Your task to perform on an android device: turn off priority inbox in the gmail app Image 0: 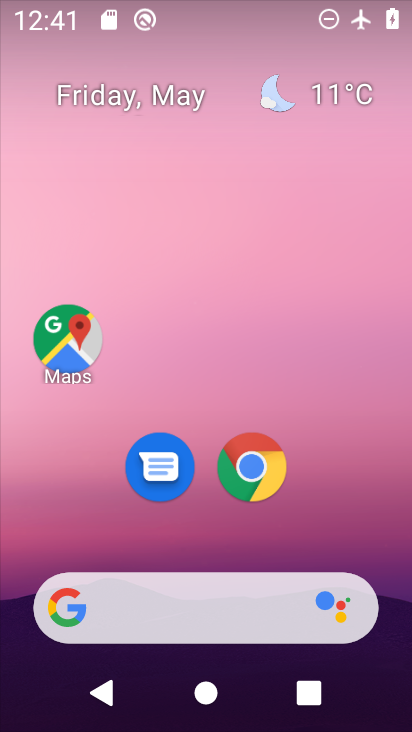
Step 0: drag from (315, 534) to (314, 170)
Your task to perform on an android device: turn off priority inbox in the gmail app Image 1: 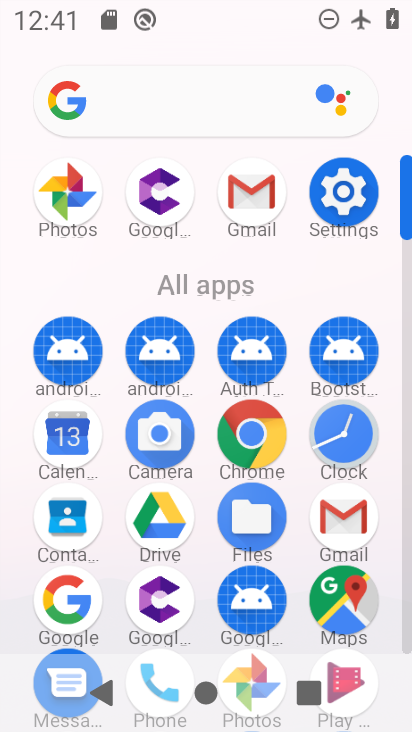
Step 1: click (336, 520)
Your task to perform on an android device: turn off priority inbox in the gmail app Image 2: 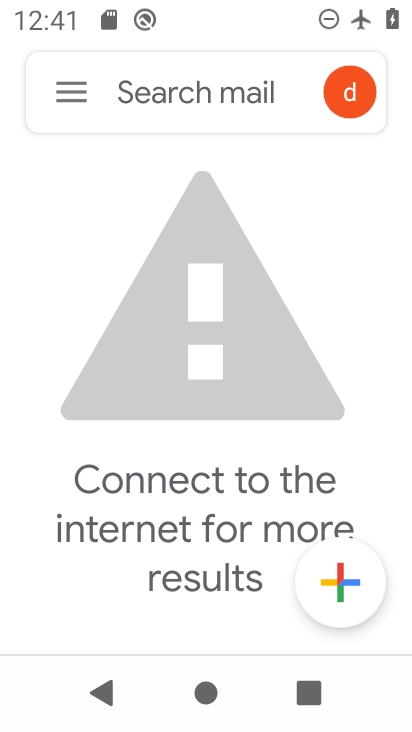
Step 2: click (78, 90)
Your task to perform on an android device: turn off priority inbox in the gmail app Image 3: 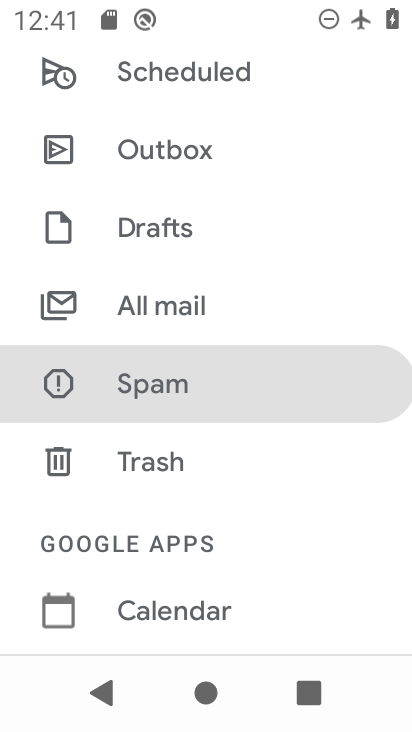
Step 3: drag from (221, 122) to (244, 603)
Your task to perform on an android device: turn off priority inbox in the gmail app Image 4: 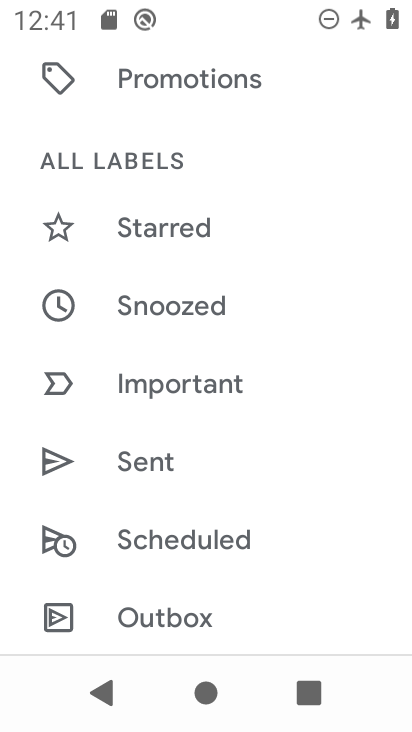
Step 4: drag from (209, 205) to (228, 551)
Your task to perform on an android device: turn off priority inbox in the gmail app Image 5: 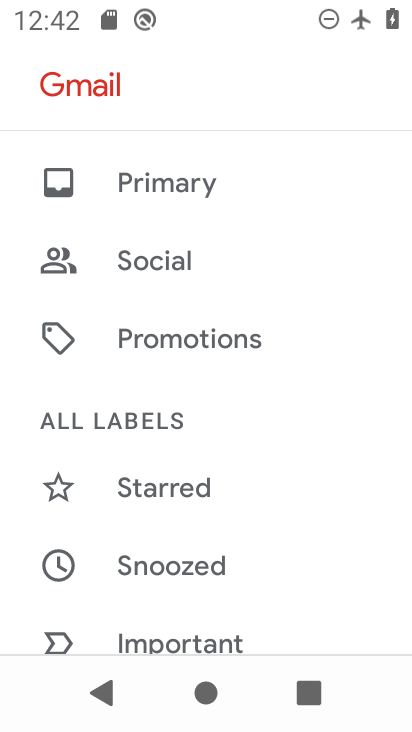
Step 5: drag from (266, 558) to (265, 192)
Your task to perform on an android device: turn off priority inbox in the gmail app Image 6: 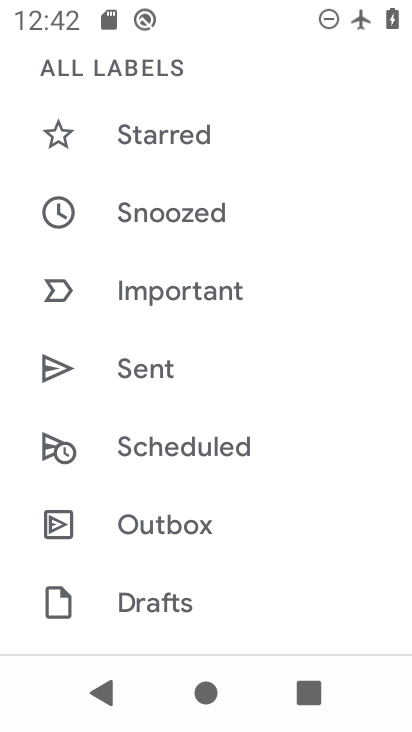
Step 6: drag from (296, 560) to (319, 188)
Your task to perform on an android device: turn off priority inbox in the gmail app Image 7: 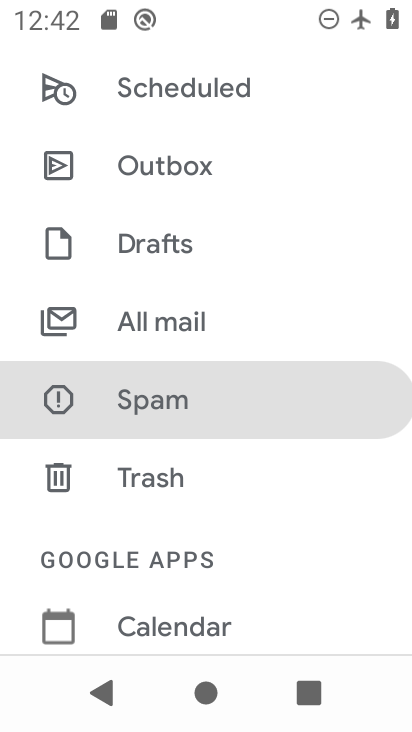
Step 7: drag from (252, 539) to (266, 177)
Your task to perform on an android device: turn off priority inbox in the gmail app Image 8: 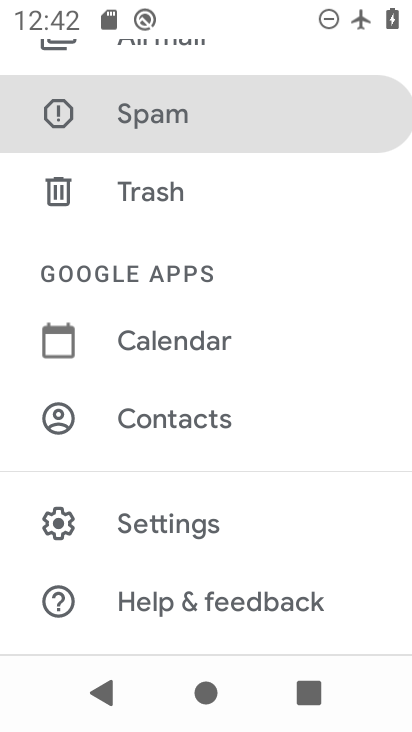
Step 8: click (50, 521)
Your task to perform on an android device: turn off priority inbox in the gmail app Image 9: 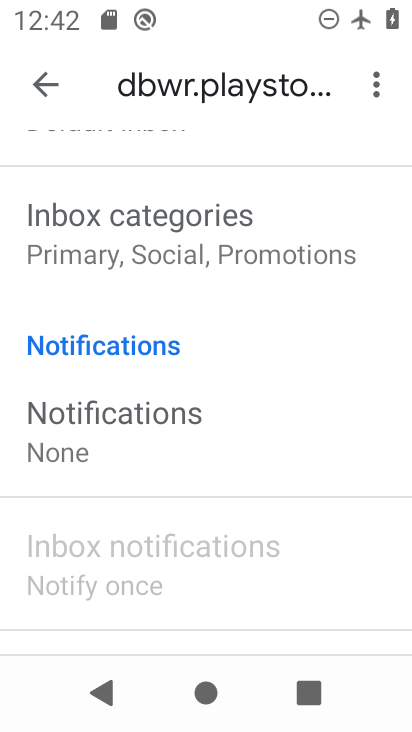
Step 9: drag from (159, 280) to (232, 582)
Your task to perform on an android device: turn off priority inbox in the gmail app Image 10: 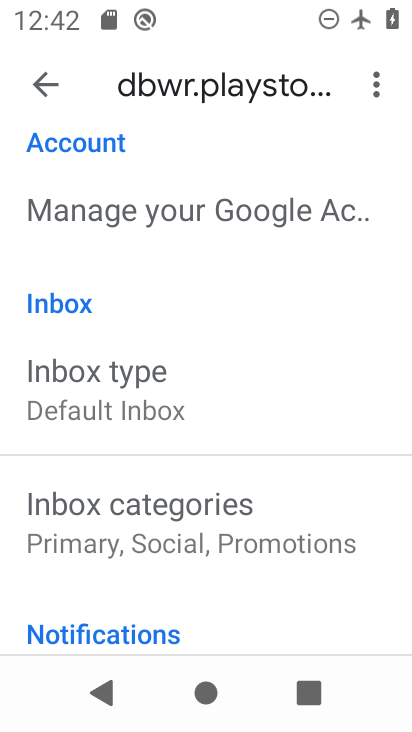
Step 10: click (106, 330)
Your task to perform on an android device: turn off priority inbox in the gmail app Image 11: 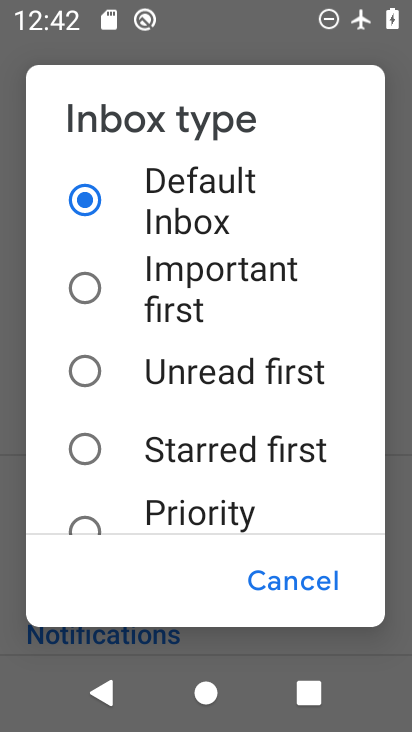
Step 11: click (91, 525)
Your task to perform on an android device: turn off priority inbox in the gmail app Image 12: 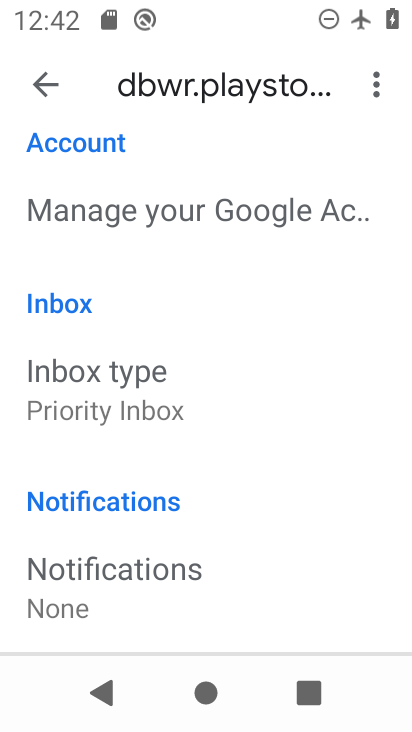
Step 12: task complete